Your task to perform on an android device: Show the shopping cart on amazon. Add asus zenbook to the cart on amazon, then select checkout. Image 0: 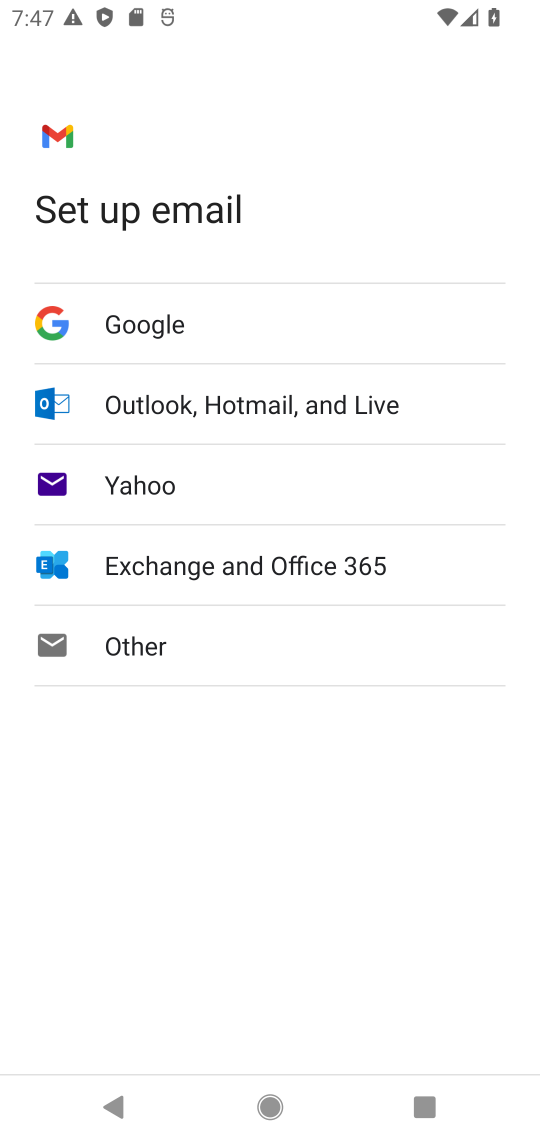
Step 0: press home button
Your task to perform on an android device: Show the shopping cart on amazon. Add asus zenbook to the cart on amazon, then select checkout. Image 1: 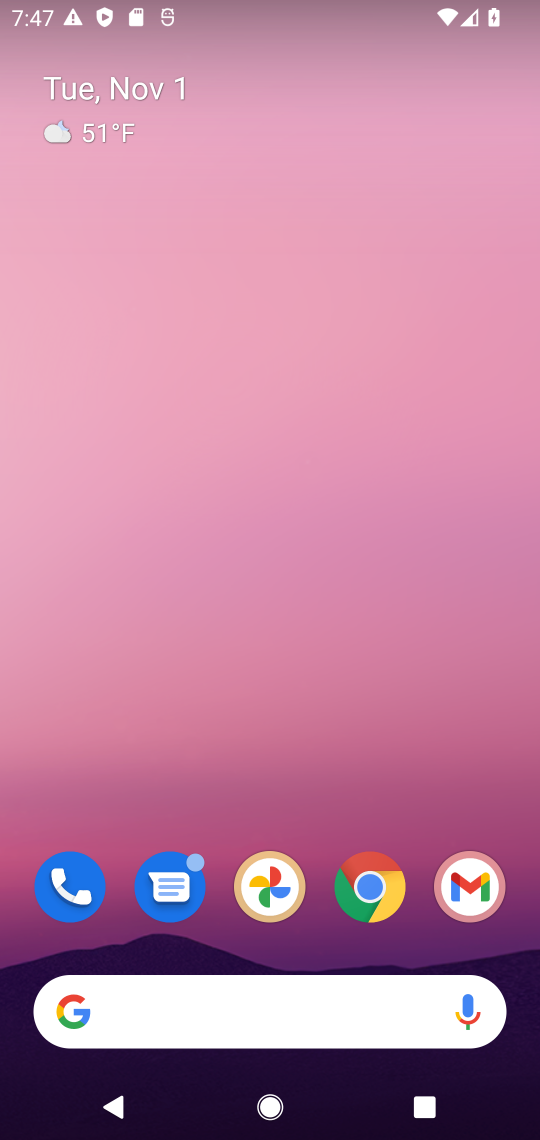
Step 1: drag from (269, 984) to (348, 276)
Your task to perform on an android device: Show the shopping cart on amazon. Add asus zenbook to the cart on amazon, then select checkout. Image 2: 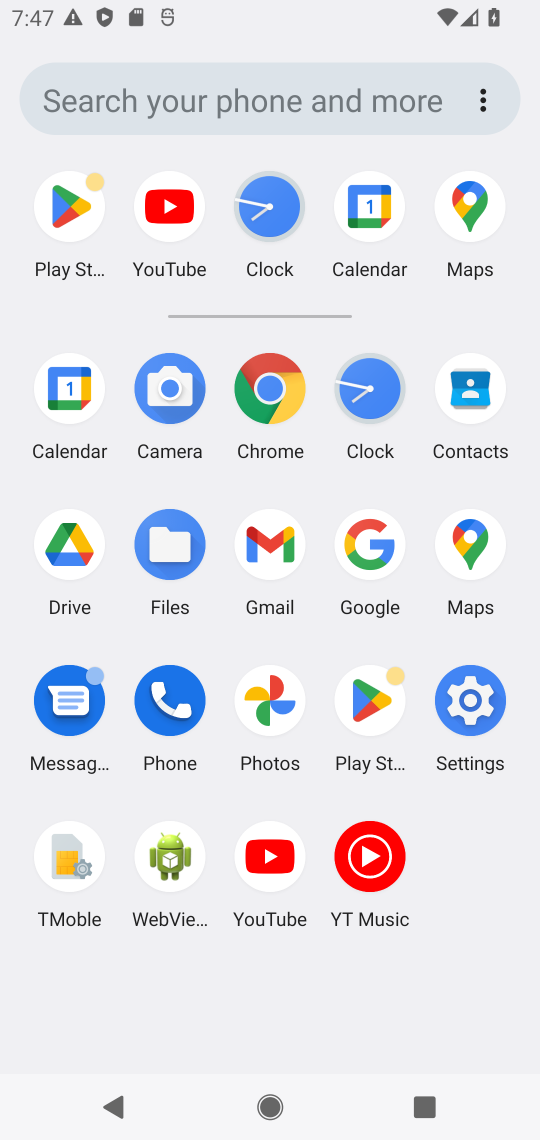
Step 2: click (368, 533)
Your task to perform on an android device: Show the shopping cart on amazon. Add asus zenbook to the cart on amazon, then select checkout. Image 3: 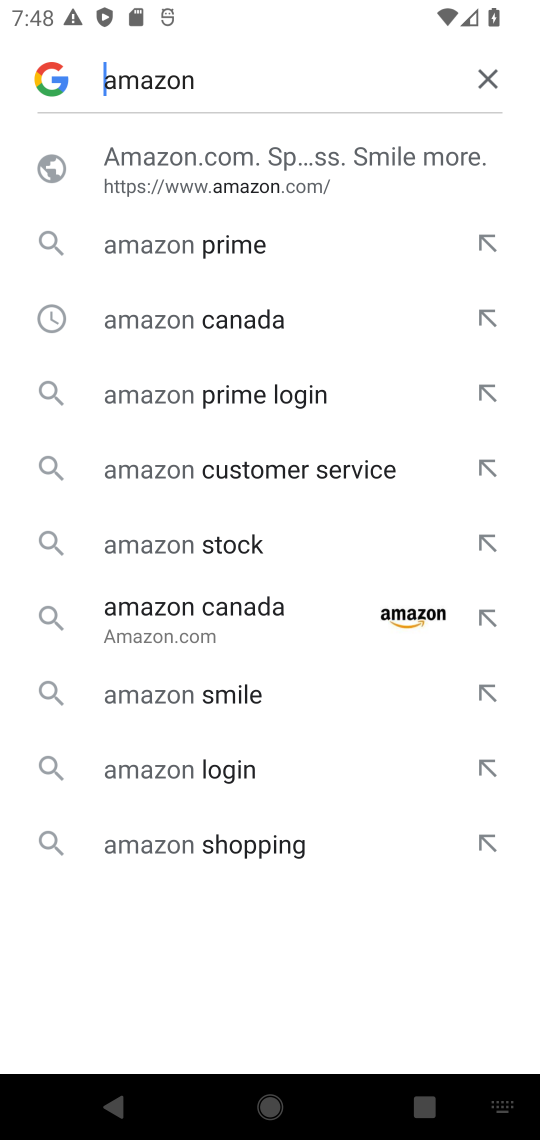
Step 3: click (492, 83)
Your task to perform on an android device: Show the shopping cart on amazon. Add asus zenbook to the cart on amazon, then select checkout. Image 4: 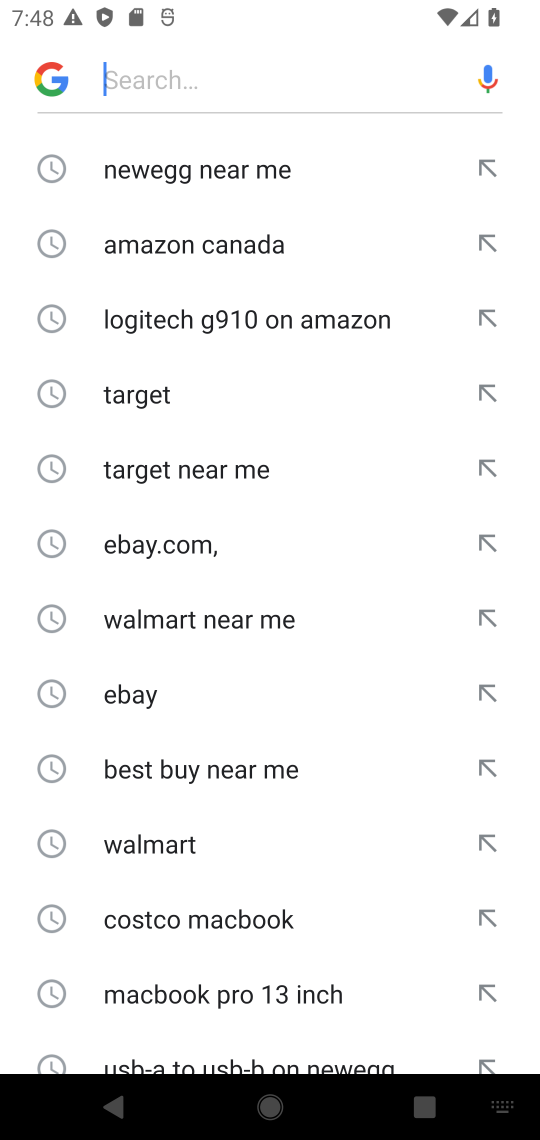
Step 4: click (214, 242)
Your task to perform on an android device: Show the shopping cart on amazon. Add asus zenbook to the cart on amazon, then select checkout. Image 5: 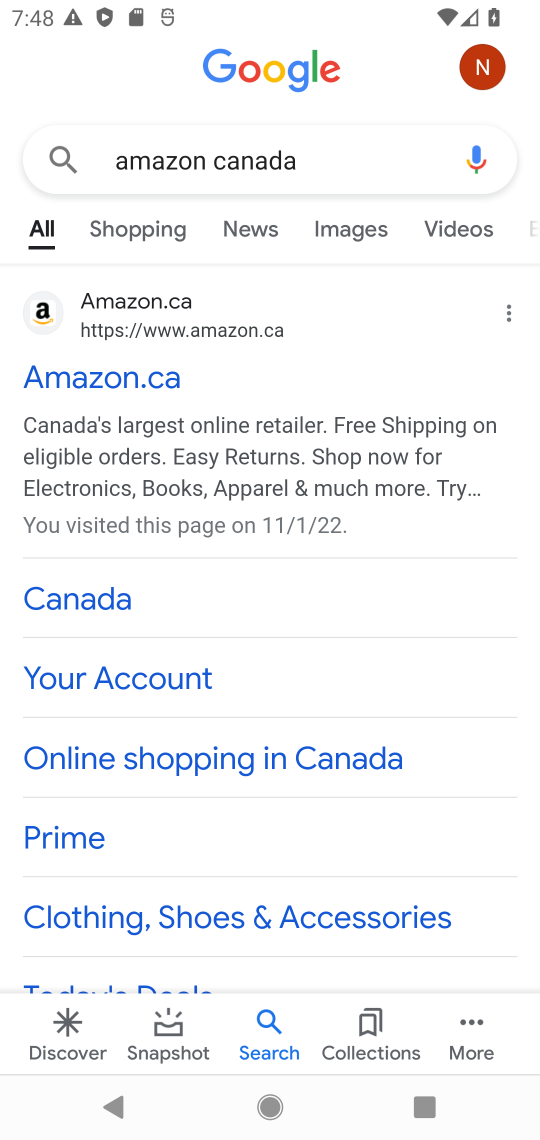
Step 5: click (116, 371)
Your task to perform on an android device: Show the shopping cart on amazon. Add asus zenbook to the cart on amazon, then select checkout. Image 6: 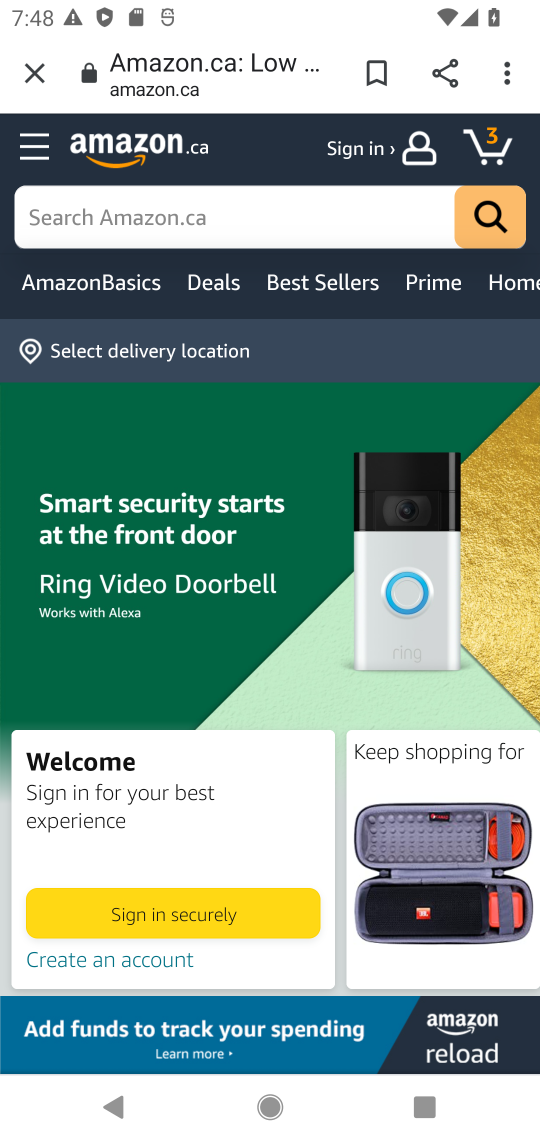
Step 6: click (255, 205)
Your task to perform on an android device: Show the shopping cart on amazon. Add asus zenbook to the cart on amazon, then select checkout. Image 7: 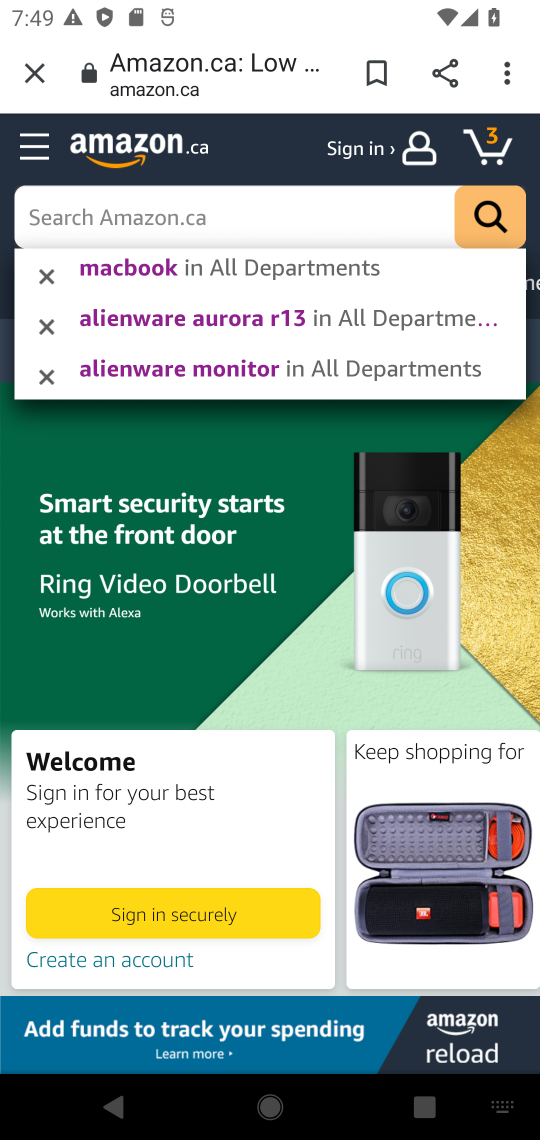
Step 7: type "asus zenbook "
Your task to perform on an android device: Show the shopping cart on amazon. Add asus zenbook to the cart on amazon, then select checkout. Image 8: 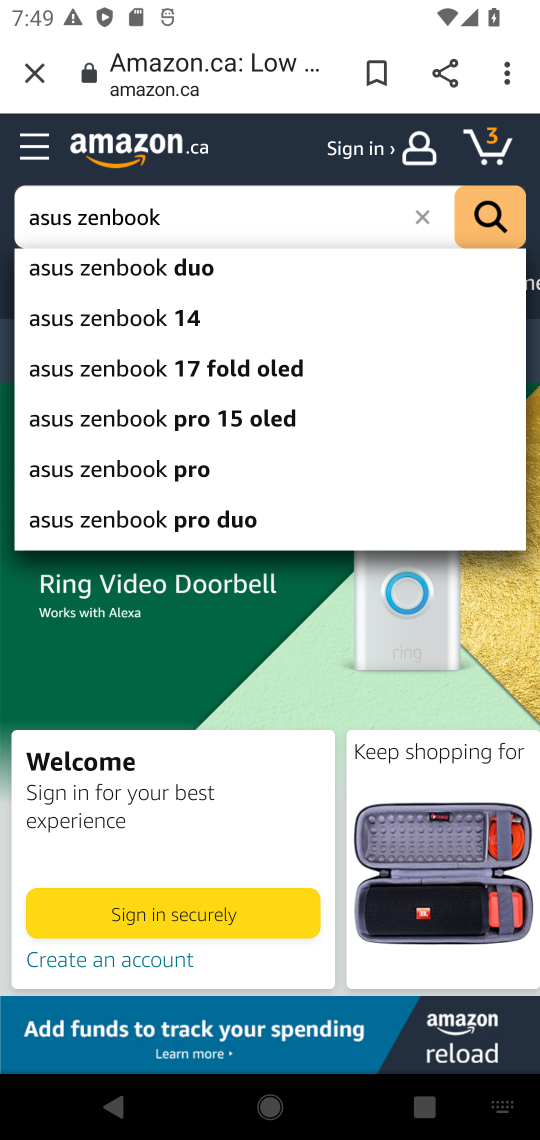
Step 8: click (92, 265)
Your task to perform on an android device: Show the shopping cart on amazon. Add asus zenbook to the cart on amazon, then select checkout. Image 9: 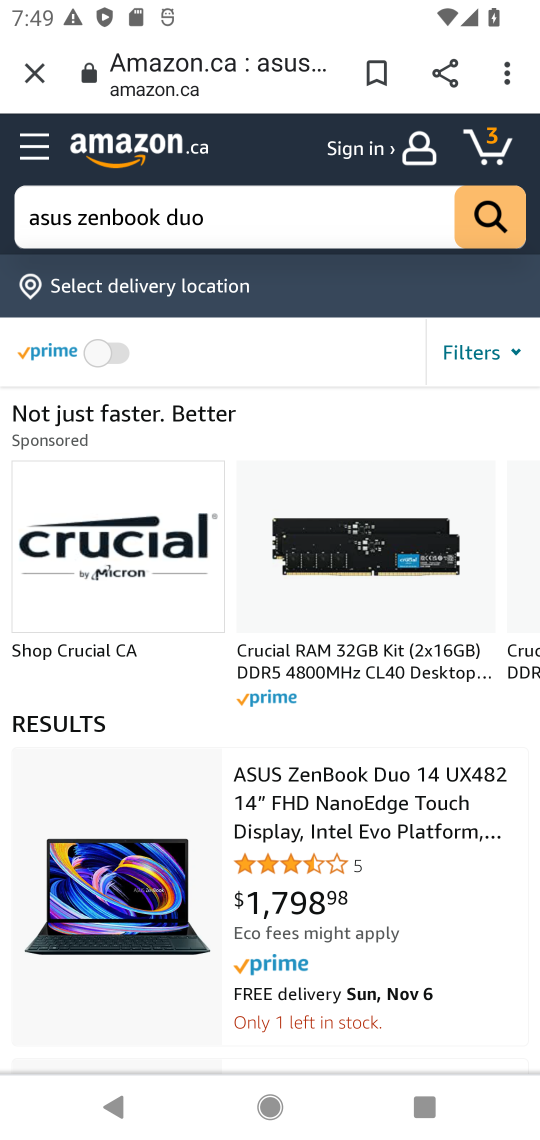
Step 9: click (332, 826)
Your task to perform on an android device: Show the shopping cart on amazon. Add asus zenbook to the cart on amazon, then select checkout. Image 10: 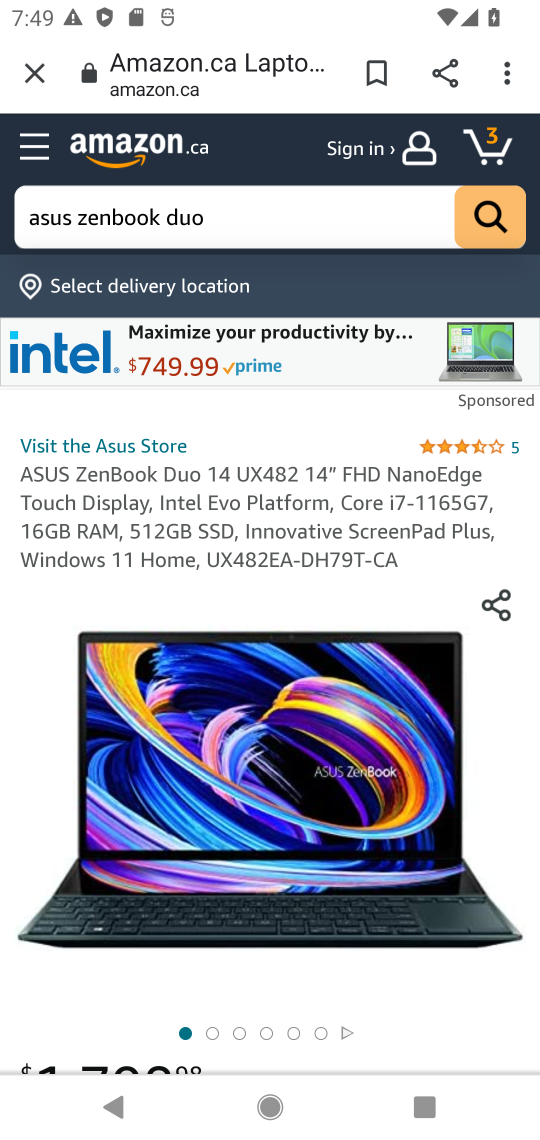
Step 10: drag from (263, 857) to (352, 355)
Your task to perform on an android device: Show the shopping cart on amazon. Add asus zenbook to the cart on amazon, then select checkout. Image 11: 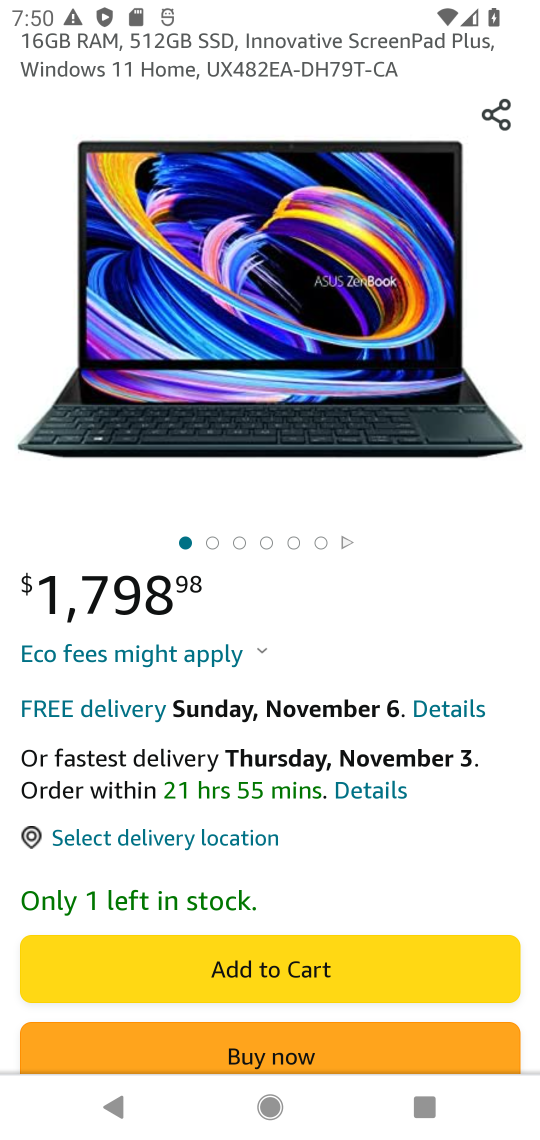
Step 11: click (293, 953)
Your task to perform on an android device: Show the shopping cart on amazon. Add asus zenbook to the cart on amazon, then select checkout. Image 12: 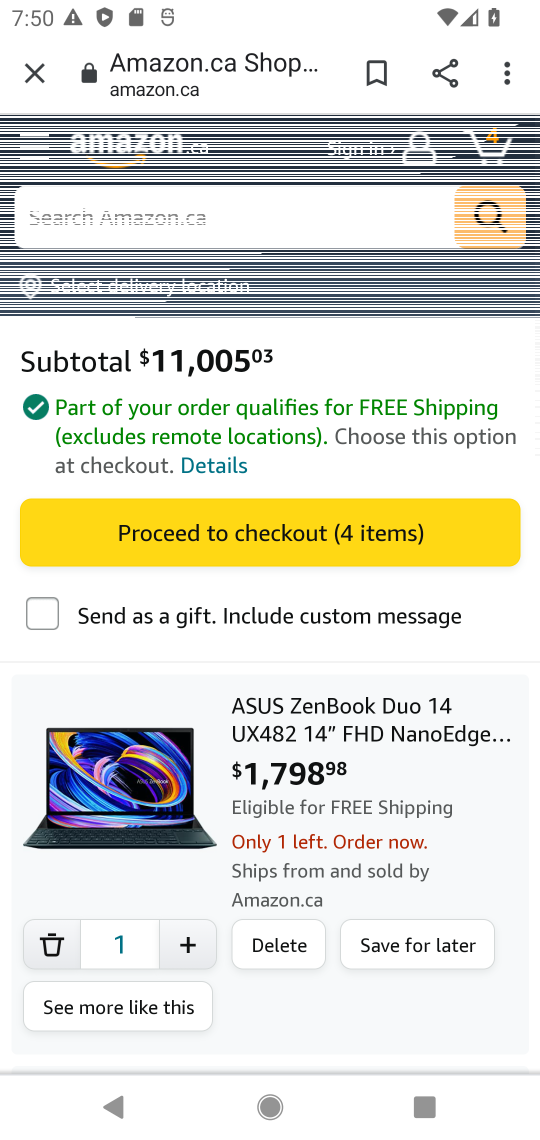
Step 12: task complete